Your task to perform on an android device: toggle notifications settings in the gmail app Image 0: 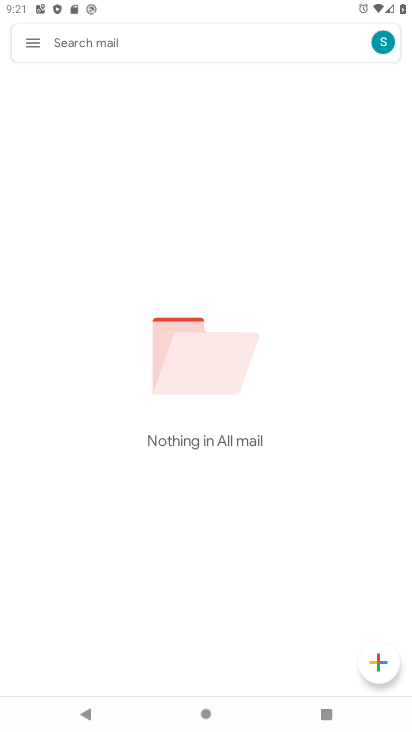
Step 0: click (37, 36)
Your task to perform on an android device: toggle notifications settings in the gmail app Image 1: 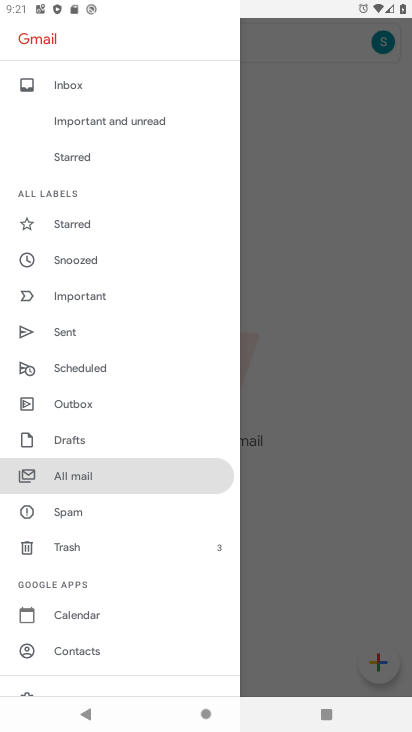
Step 1: drag from (106, 655) to (166, 300)
Your task to perform on an android device: toggle notifications settings in the gmail app Image 2: 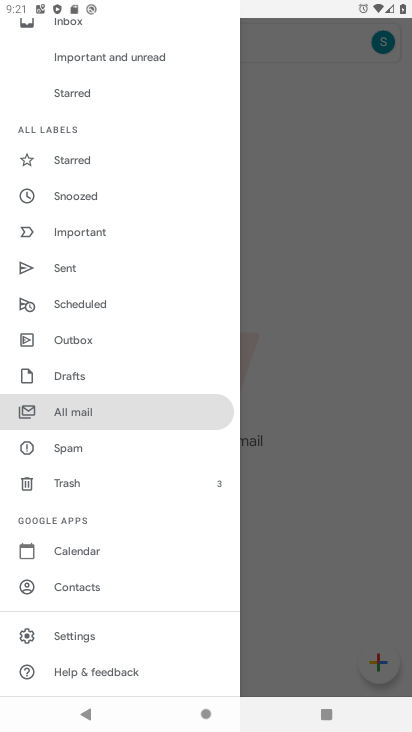
Step 2: click (90, 633)
Your task to perform on an android device: toggle notifications settings in the gmail app Image 3: 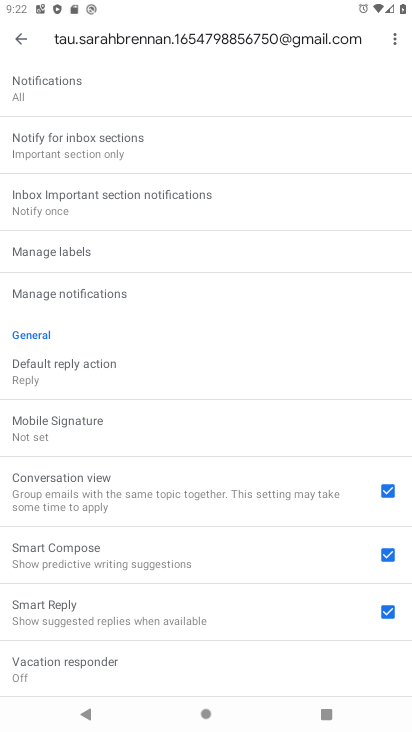
Step 3: click (61, 87)
Your task to perform on an android device: toggle notifications settings in the gmail app Image 4: 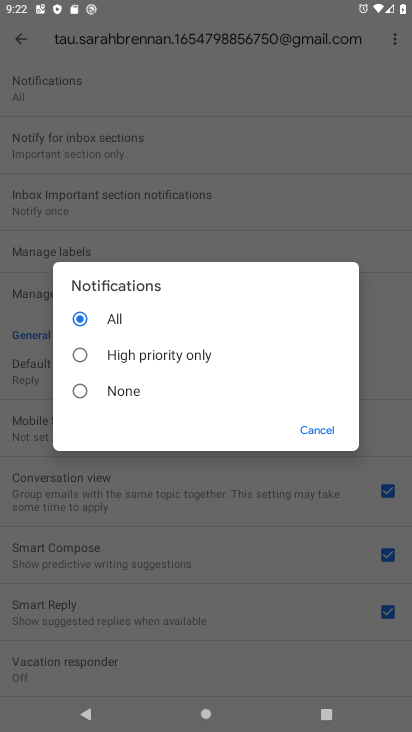
Step 4: click (312, 431)
Your task to perform on an android device: toggle notifications settings in the gmail app Image 5: 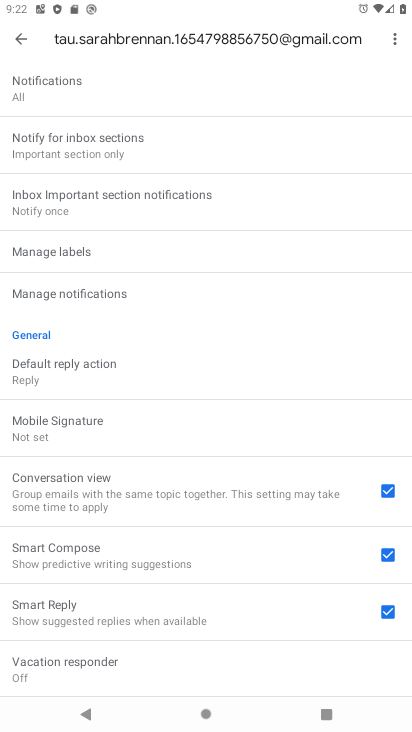
Step 5: click (95, 301)
Your task to perform on an android device: toggle notifications settings in the gmail app Image 6: 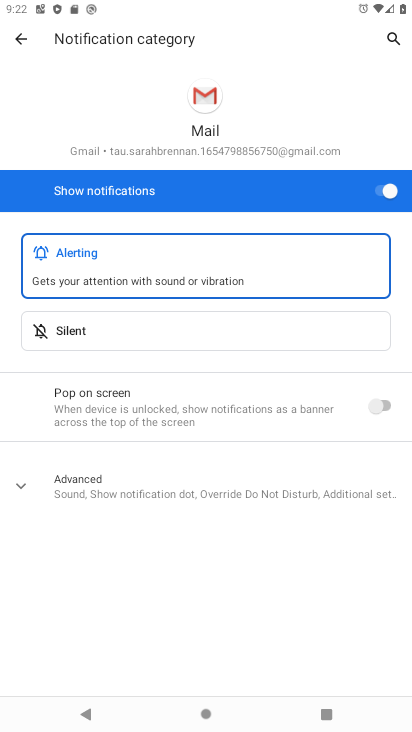
Step 6: task complete